Your task to perform on an android device: Open internet settings Image 0: 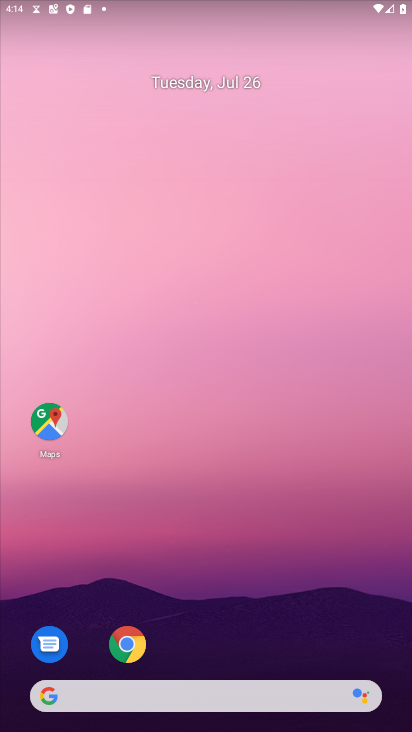
Step 0: drag from (236, 635) to (144, 92)
Your task to perform on an android device: Open internet settings Image 1: 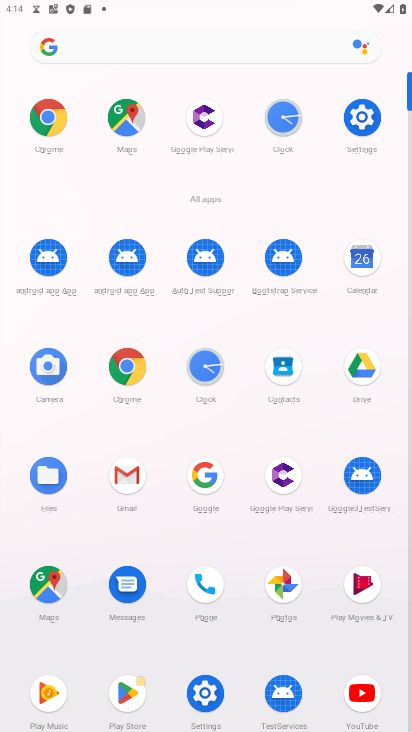
Step 1: click (352, 111)
Your task to perform on an android device: Open internet settings Image 2: 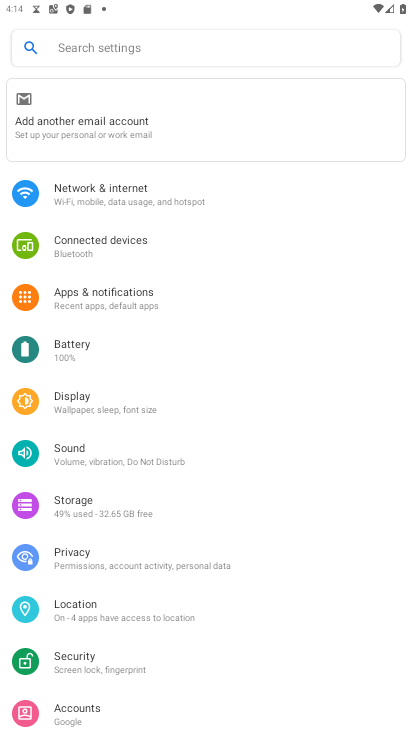
Step 2: click (253, 193)
Your task to perform on an android device: Open internet settings Image 3: 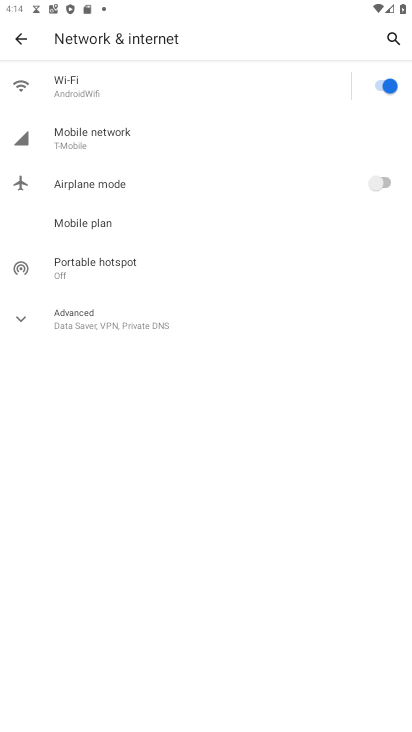
Step 3: task complete